Your task to perform on an android device: toggle pop-ups in chrome Image 0: 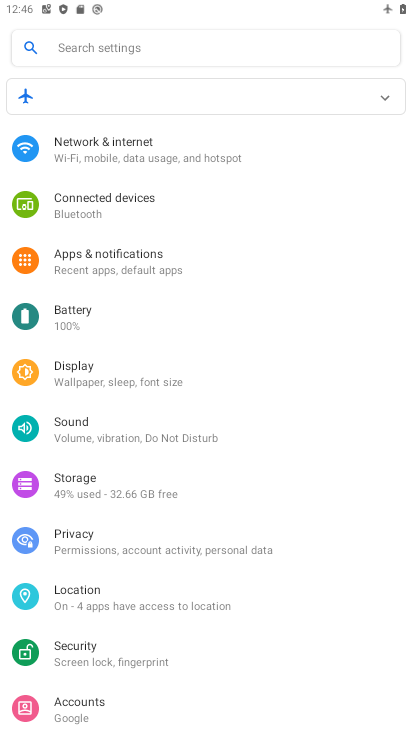
Step 0: press home button
Your task to perform on an android device: toggle pop-ups in chrome Image 1: 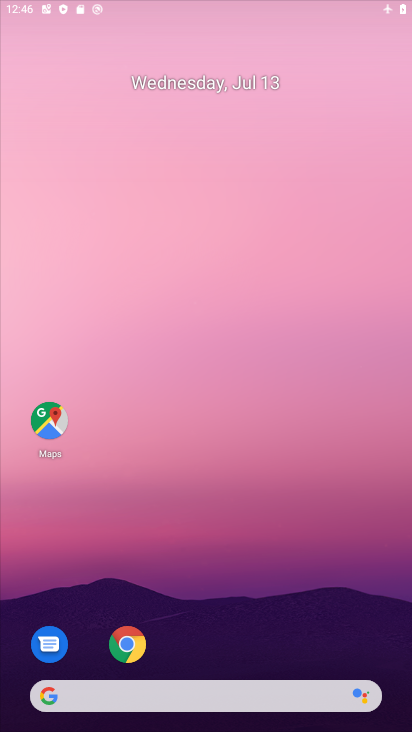
Step 1: drag from (228, 291) to (190, 142)
Your task to perform on an android device: toggle pop-ups in chrome Image 2: 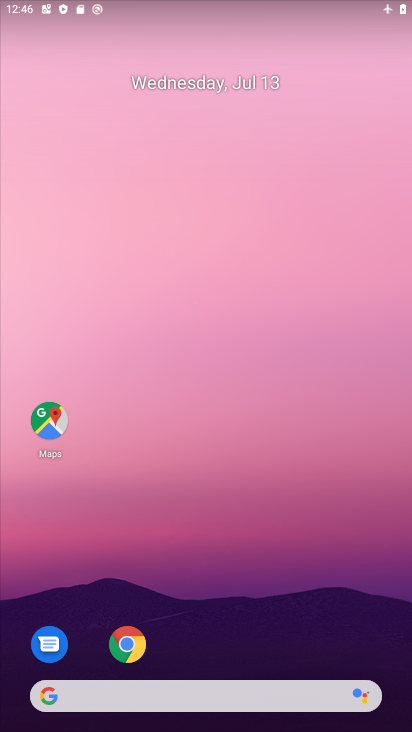
Step 2: drag from (248, 600) to (160, 2)
Your task to perform on an android device: toggle pop-ups in chrome Image 3: 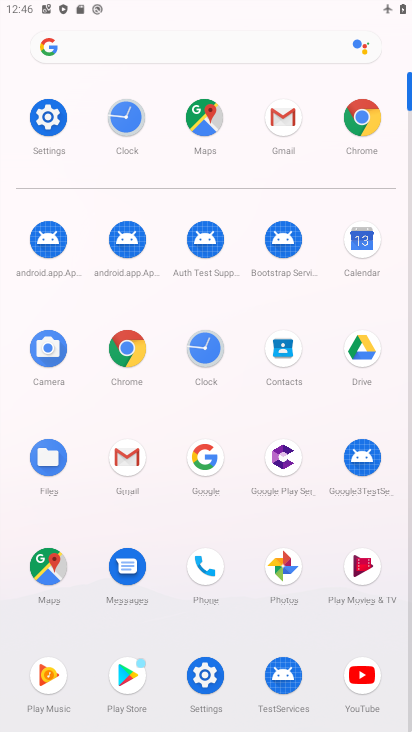
Step 3: click (128, 353)
Your task to perform on an android device: toggle pop-ups in chrome Image 4: 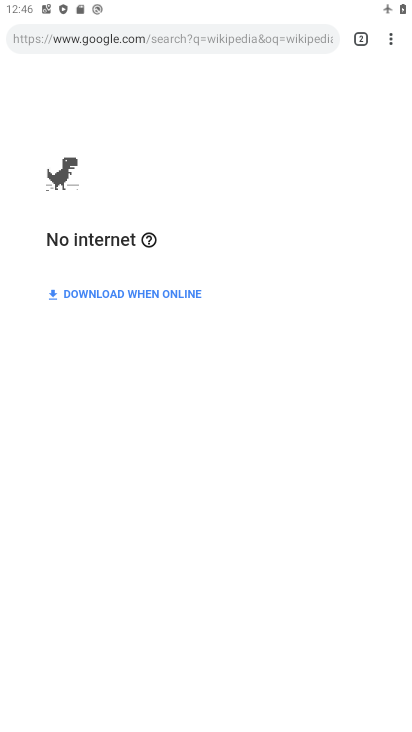
Step 4: click (390, 34)
Your task to perform on an android device: toggle pop-ups in chrome Image 5: 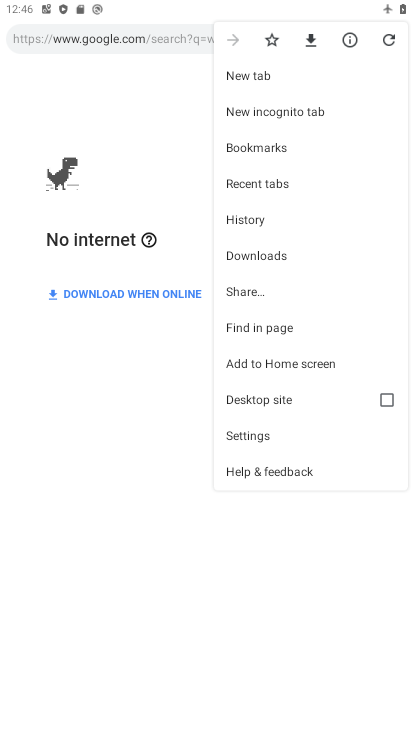
Step 5: click (268, 436)
Your task to perform on an android device: toggle pop-ups in chrome Image 6: 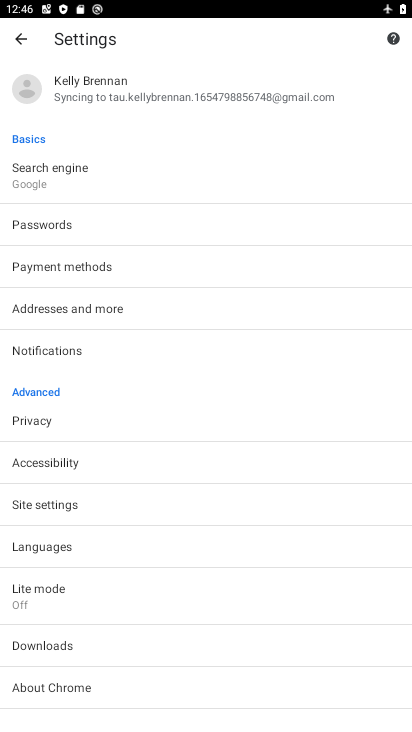
Step 6: click (54, 507)
Your task to perform on an android device: toggle pop-ups in chrome Image 7: 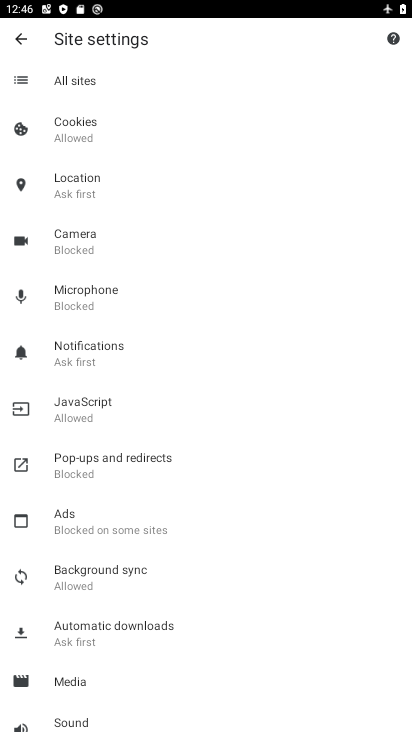
Step 7: click (125, 457)
Your task to perform on an android device: toggle pop-ups in chrome Image 8: 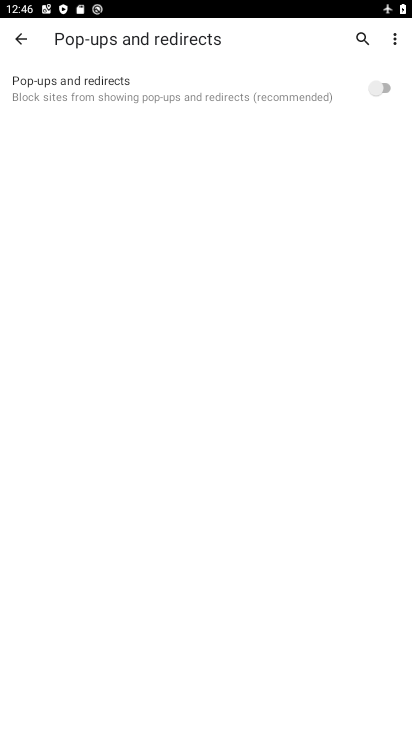
Step 8: click (370, 81)
Your task to perform on an android device: toggle pop-ups in chrome Image 9: 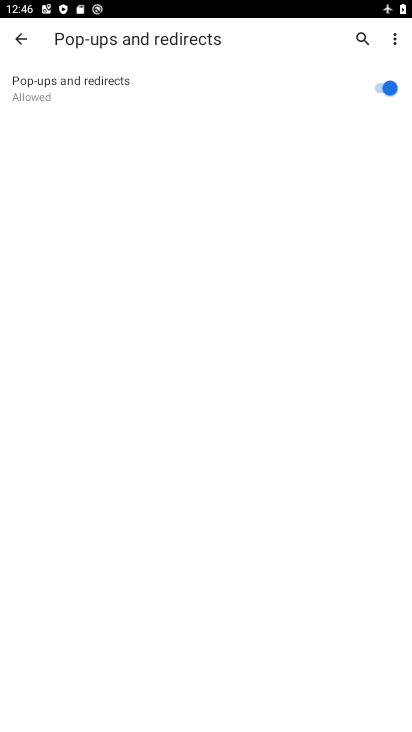
Step 9: task complete